Your task to perform on an android device: Do I have any events this weekend? Image 0: 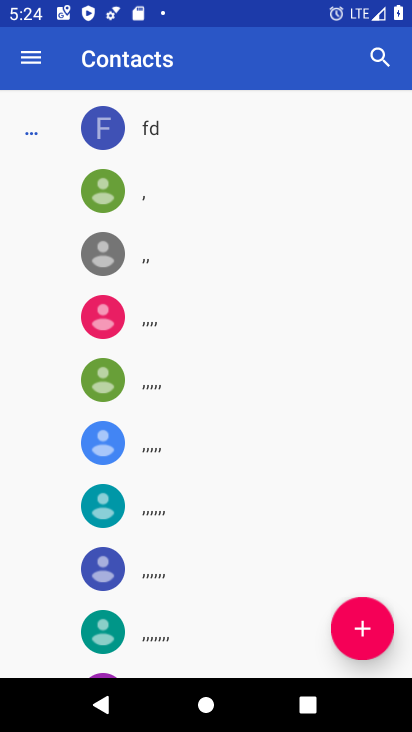
Step 0: press home button
Your task to perform on an android device: Do I have any events this weekend? Image 1: 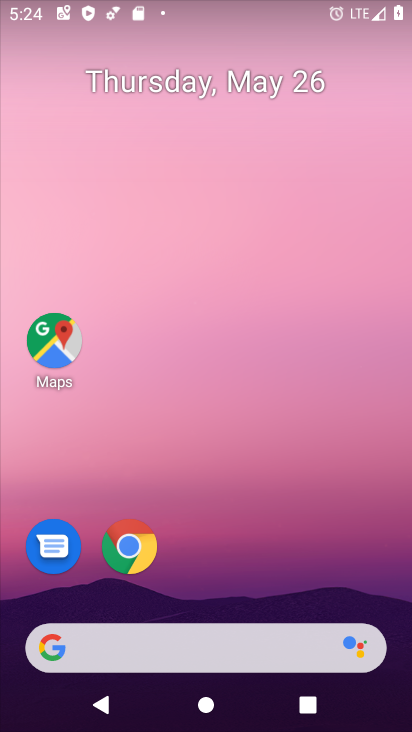
Step 1: drag from (318, 520) to (330, 0)
Your task to perform on an android device: Do I have any events this weekend? Image 2: 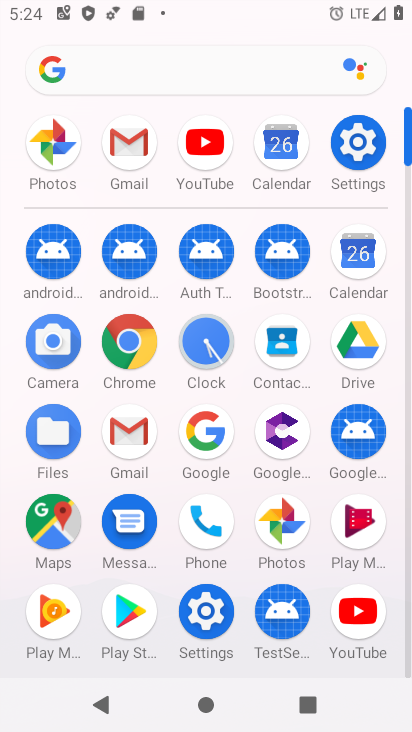
Step 2: click (353, 259)
Your task to perform on an android device: Do I have any events this weekend? Image 3: 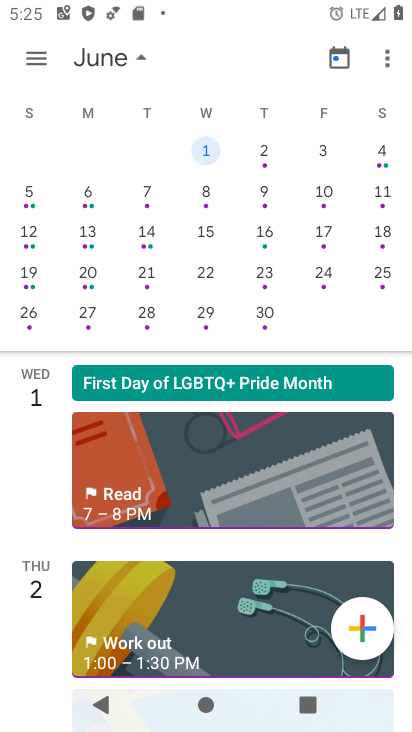
Step 3: drag from (41, 230) to (404, 235)
Your task to perform on an android device: Do I have any events this weekend? Image 4: 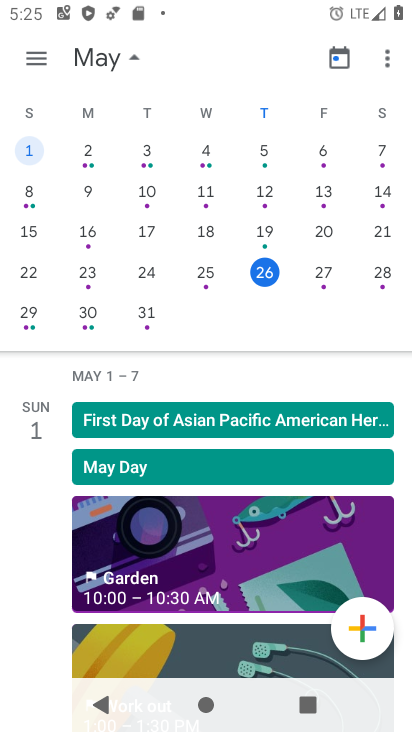
Step 4: click (384, 263)
Your task to perform on an android device: Do I have any events this weekend? Image 5: 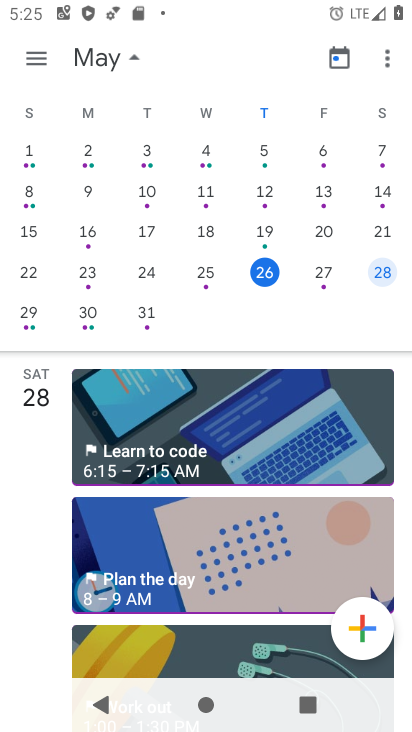
Step 5: drag from (180, 574) to (213, 313)
Your task to perform on an android device: Do I have any events this weekend? Image 6: 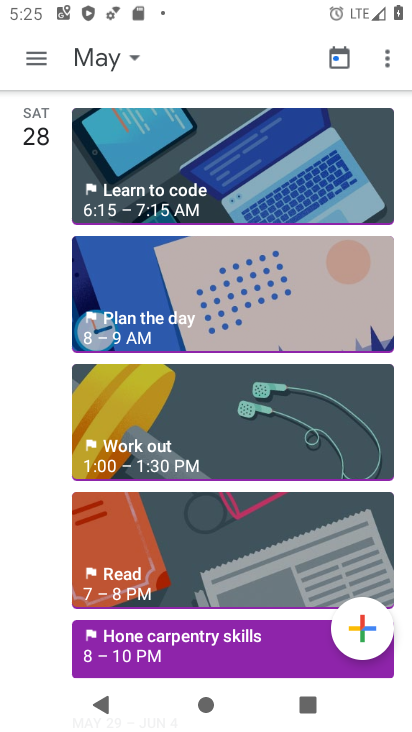
Step 6: click (170, 439)
Your task to perform on an android device: Do I have any events this weekend? Image 7: 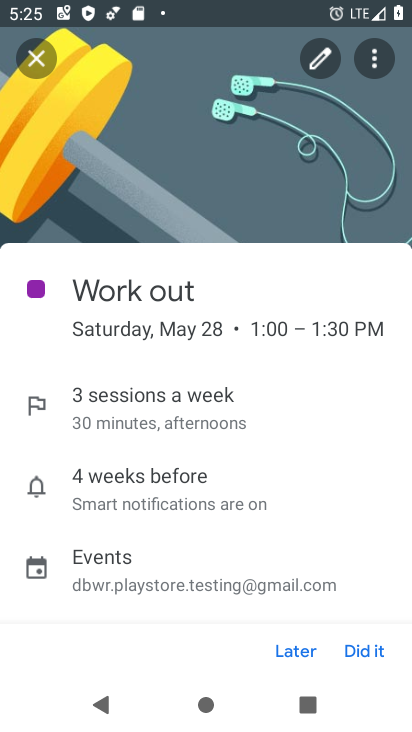
Step 7: task complete